Your task to perform on an android device: Set the phone to "Do not disturb". Image 0: 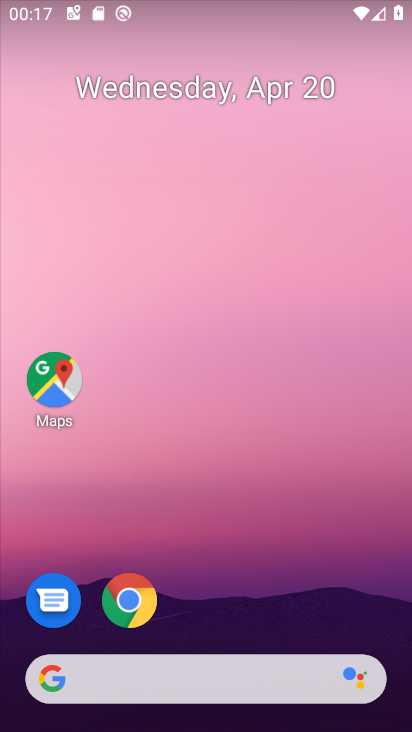
Step 0: drag from (330, 586) to (346, 223)
Your task to perform on an android device: Set the phone to "Do not disturb". Image 1: 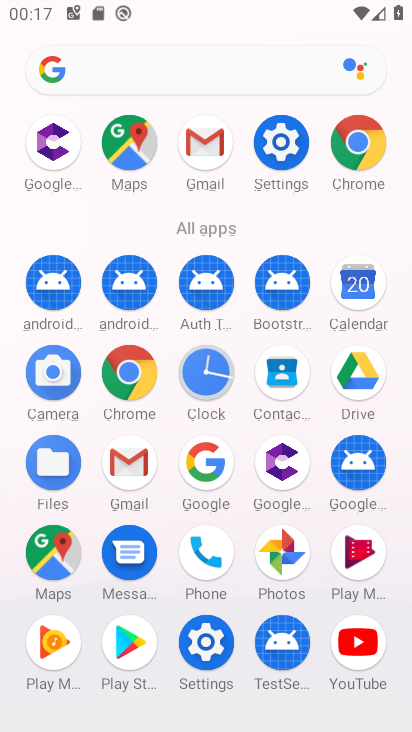
Step 1: click (285, 164)
Your task to perform on an android device: Set the phone to "Do not disturb". Image 2: 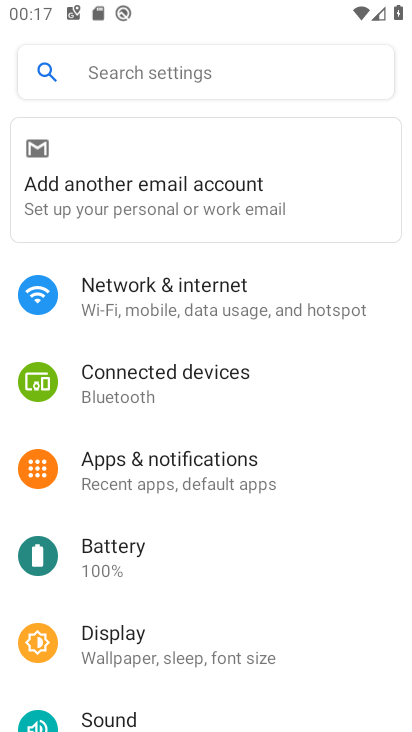
Step 2: drag from (337, 614) to (362, 387)
Your task to perform on an android device: Set the phone to "Do not disturb". Image 3: 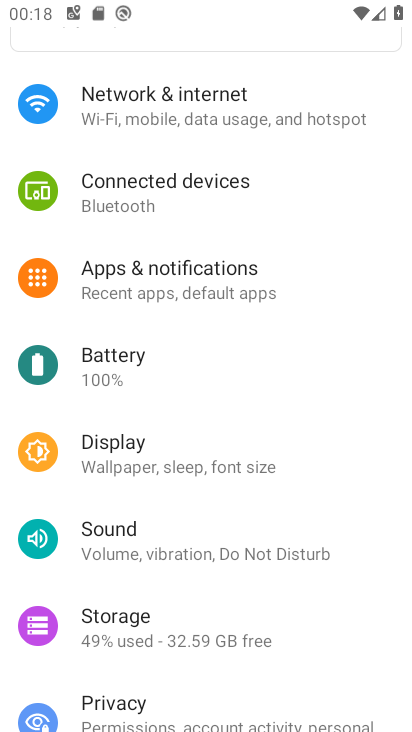
Step 3: click (130, 531)
Your task to perform on an android device: Set the phone to "Do not disturb". Image 4: 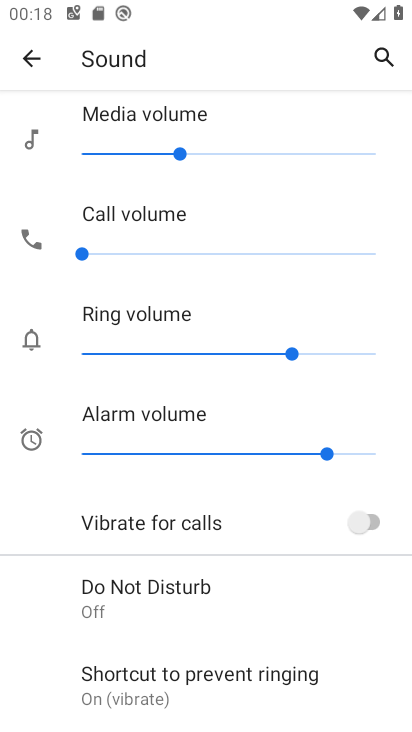
Step 4: drag from (231, 592) to (252, 392)
Your task to perform on an android device: Set the phone to "Do not disturb". Image 5: 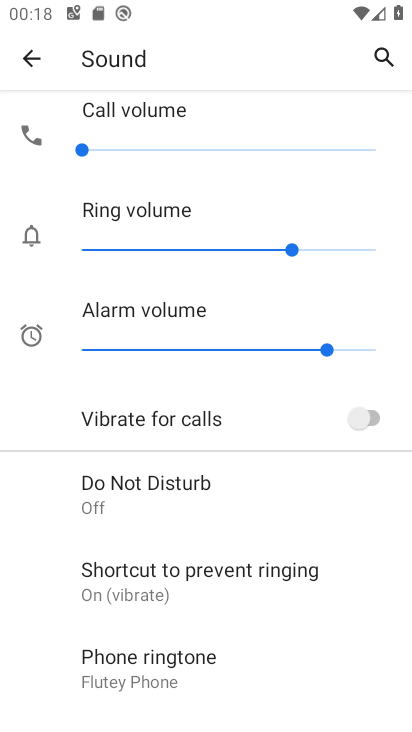
Step 5: click (167, 496)
Your task to perform on an android device: Set the phone to "Do not disturb". Image 6: 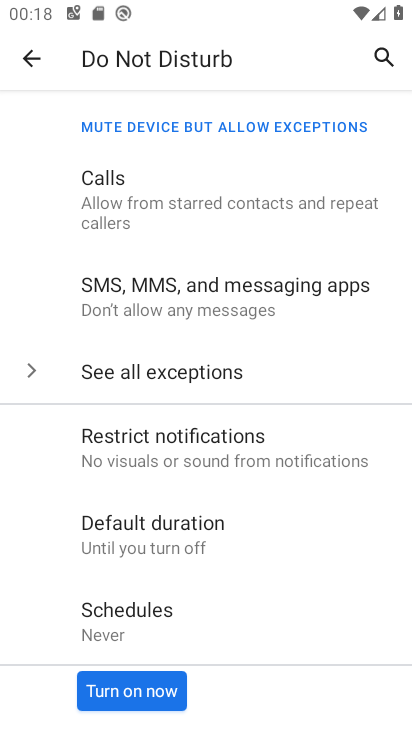
Step 6: click (117, 694)
Your task to perform on an android device: Set the phone to "Do not disturb". Image 7: 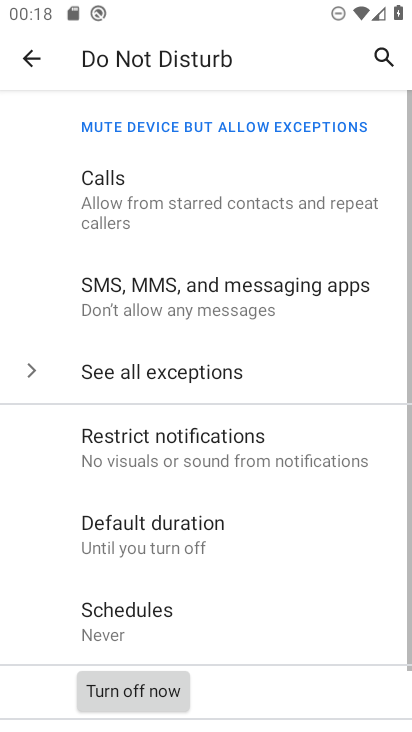
Step 7: task complete